Your task to perform on an android device: What's the weather going to be this weekend? Image 0: 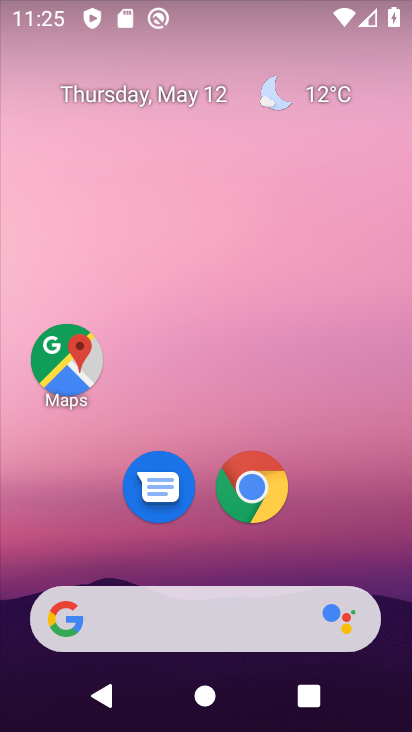
Step 0: drag from (245, 443) to (278, 58)
Your task to perform on an android device: What's the weather going to be this weekend? Image 1: 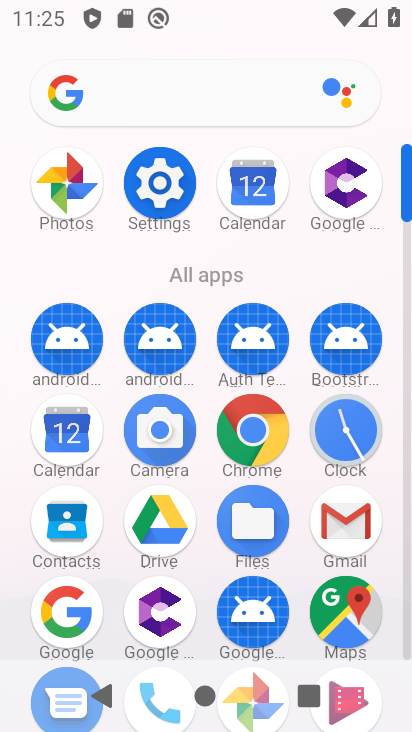
Step 1: click (143, 86)
Your task to perform on an android device: What's the weather going to be this weekend? Image 2: 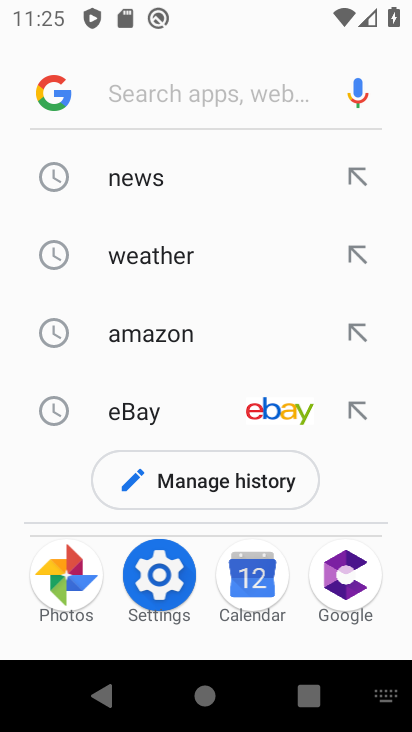
Step 2: click (146, 267)
Your task to perform on an android device: What's the weather going to be this weekend? Image 3: 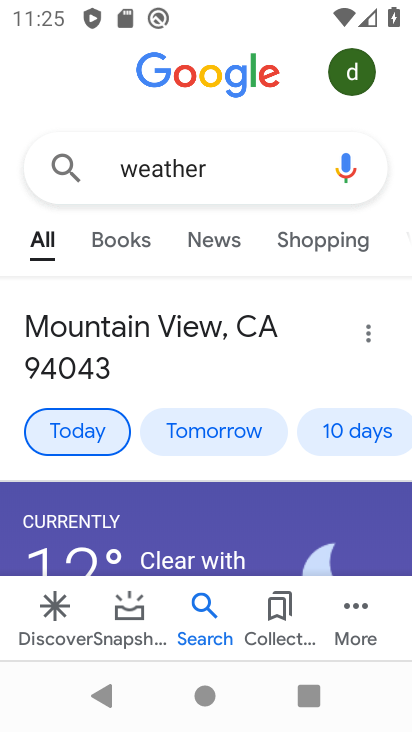
Step 3: drag from (166, 490) to (234, 98)
Your task to perform on an android device: What's the weather going to be this weekend? Image 4: 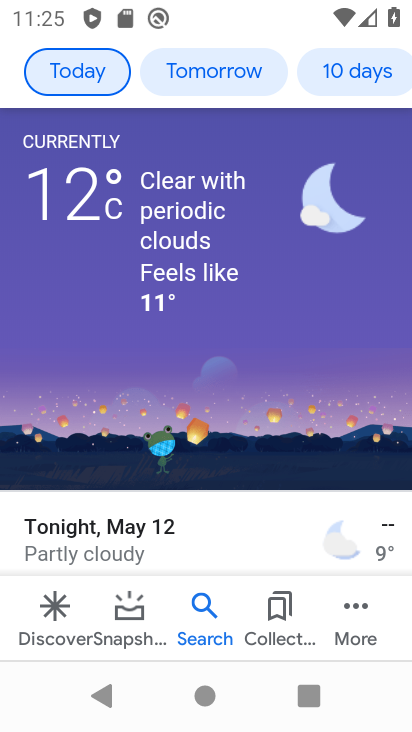
Step 4: drag from (176, 473) to (123, 595)
Your task to perform on an android device: What's the weather going to be this weekend? Image 5: 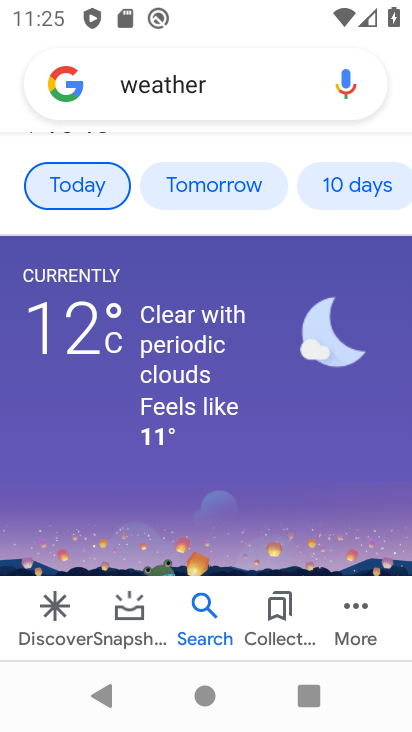
Step 5: drag from (164, 201) to (129, 566)
Your task to perform on an android device: What's the weather going to be this weekend? Image 6: 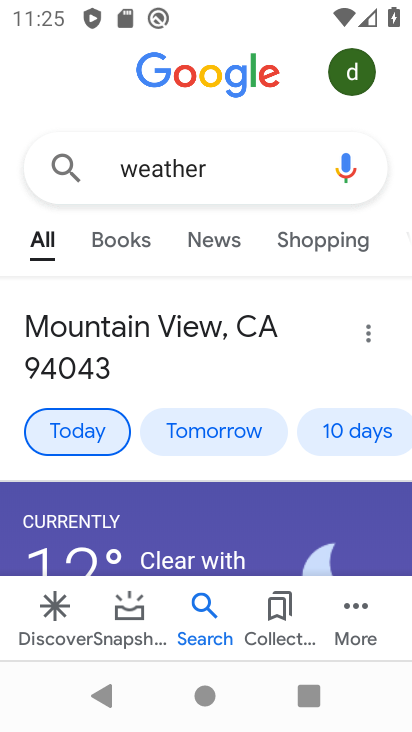
Step 6: click (360, 436)
Your task to perform on an android device: What's the weather going to be this weekend? Image 7: 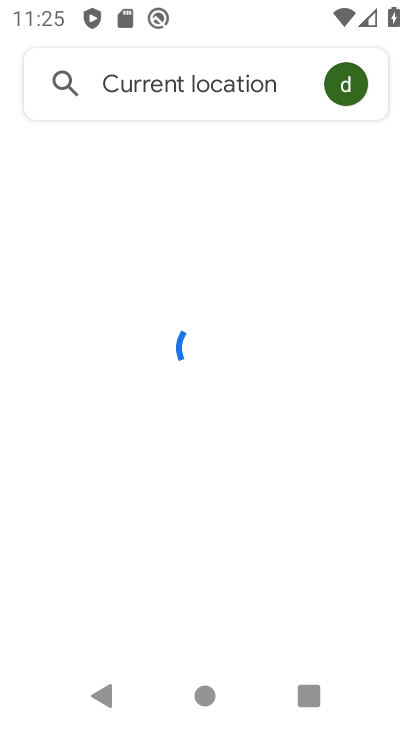
Step 7: drag from (187, 531) to (281, 128)
Your task to perform on an android device: What's the weather going to be this weekend? Image 8: 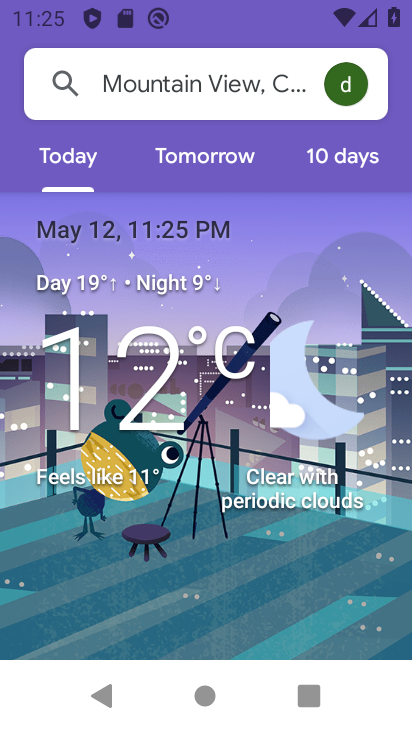
Step 8: click (330, 155)
Your task to perform on an android device: What's the weather going to be this weekend? Image 9: 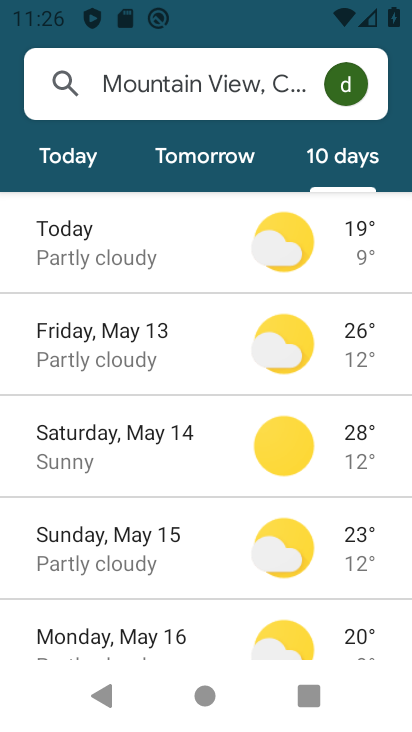
Step 9: task complete